Your task to perform on an android device: change timer sound Image 0: 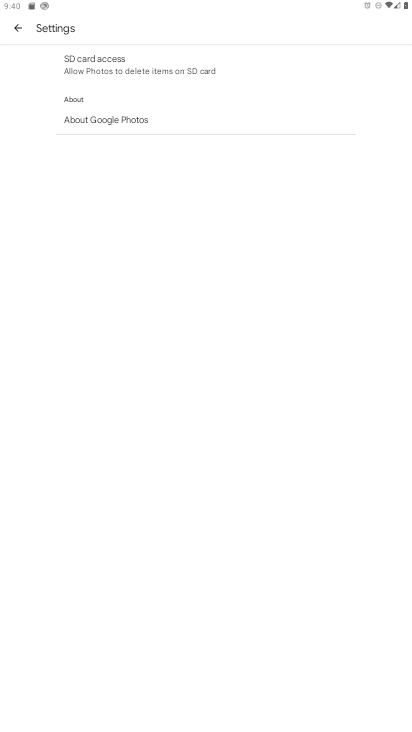
Step 0: press home button
Your task to perform on an android device: change timer sound Image 1: 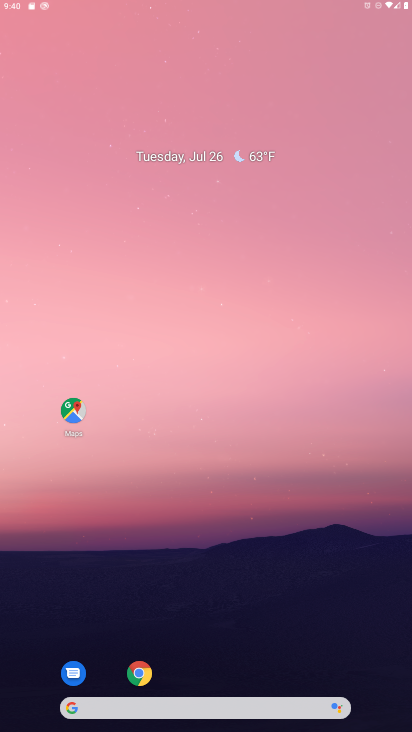
Step 1: drag from (396, 689) to (136, 39)
Your task to perform on an android device: change timer sound Image 2: 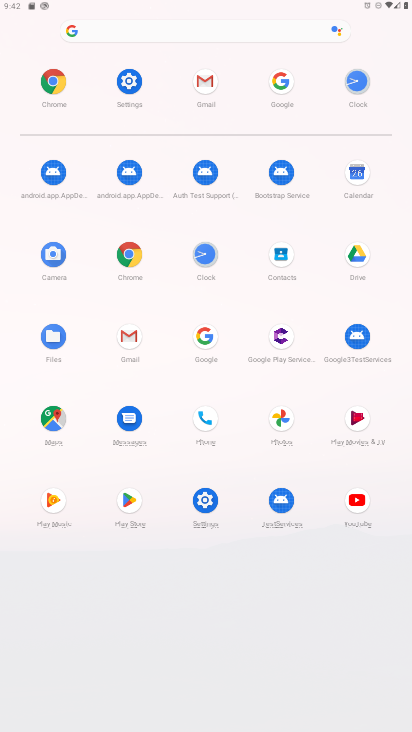
Step 2: click (200, 264)
Your task to perform on an android device: change timer sound Image 3: 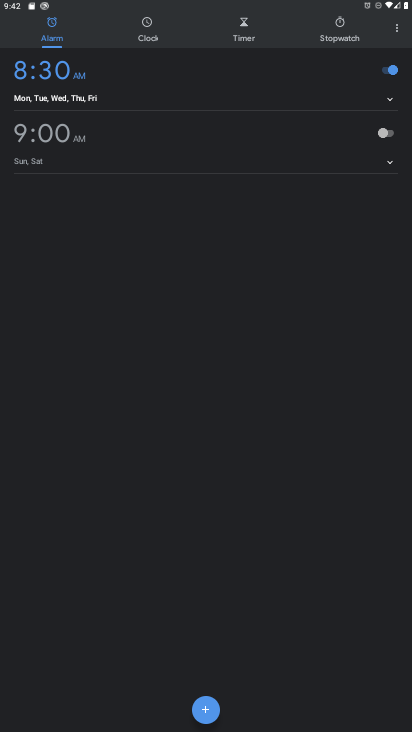
Step 3: click (397, 18)
Your task to perform on an android device: change timer sound Image 4: 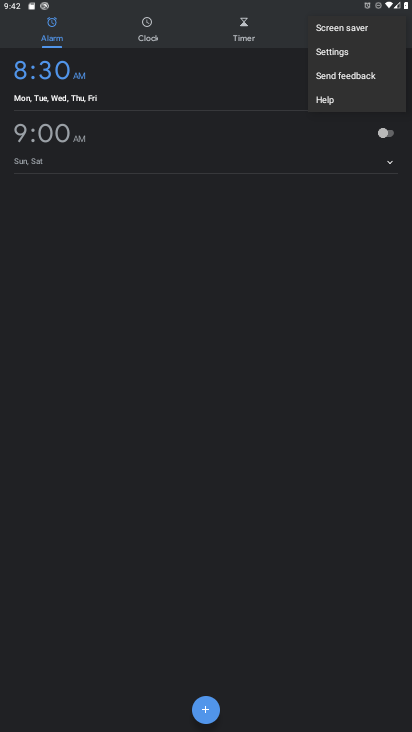
Step 4: click (337, 53)
Your task to perform on an android device: change timer sound Image 5: 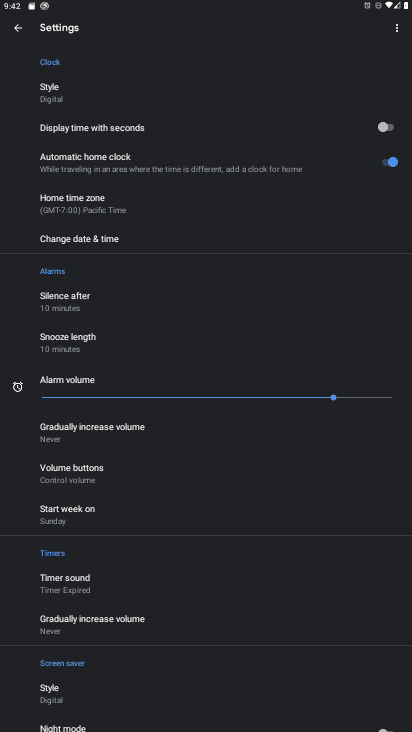
Step 5: click (65, 593)
Your task to perform on an android device: change timer sound Image 6: 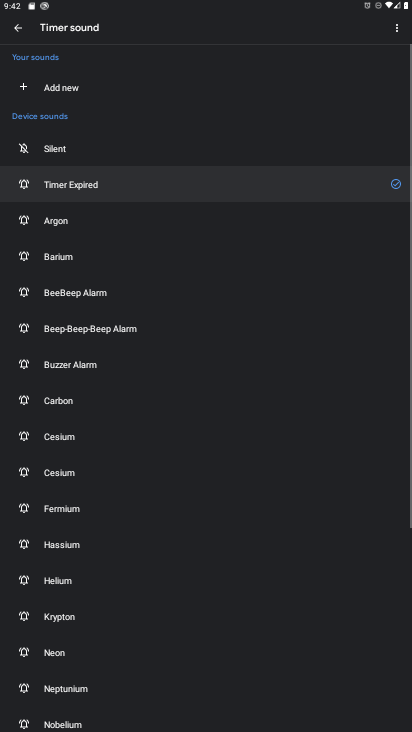
Step 6: click (78, 259)
Your task to perform on an android device: change timer sound Image 7: 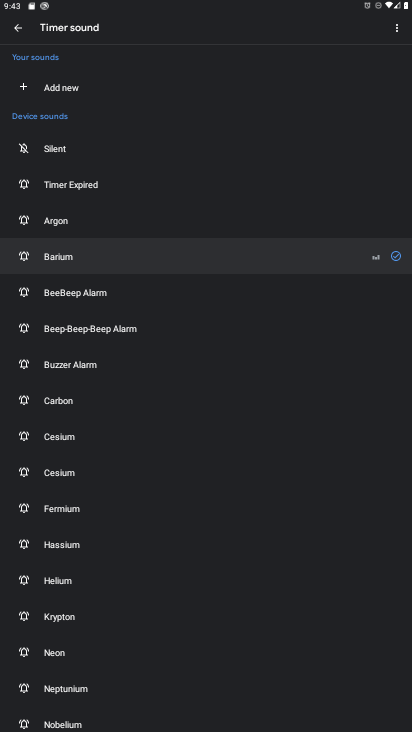
Step 7: task complete